Your task to perform on an android device: Open Yahoo.com Image 0: 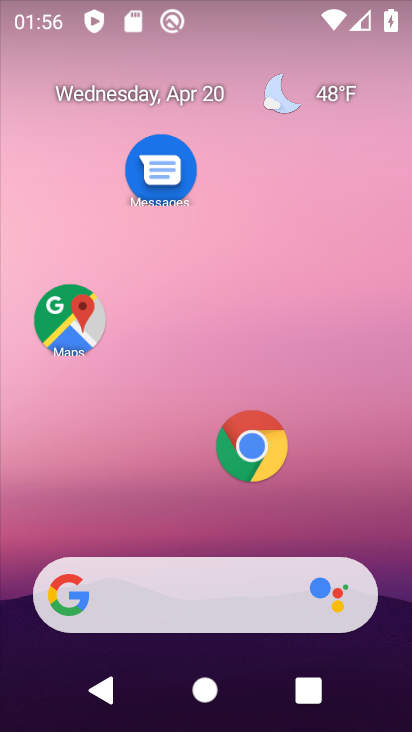
Step 0: drag from (206, 537) to (238, 60)
Your task to perform on an android device: Open Yahoo.com Image 1: 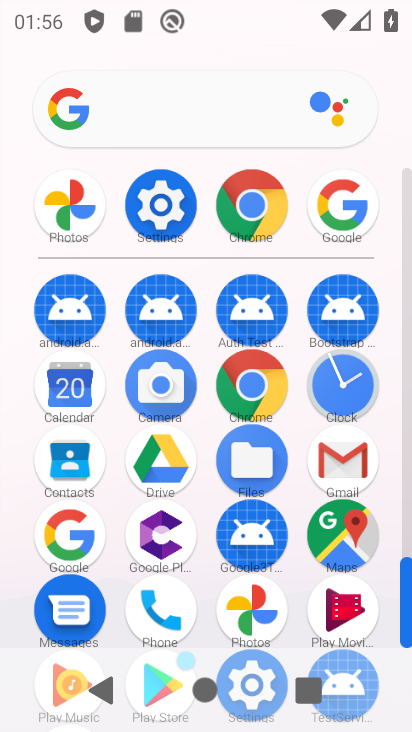
Step 1: click (246, 384)
Your task to perform on an android device: Open Yahoo.com Image 2: 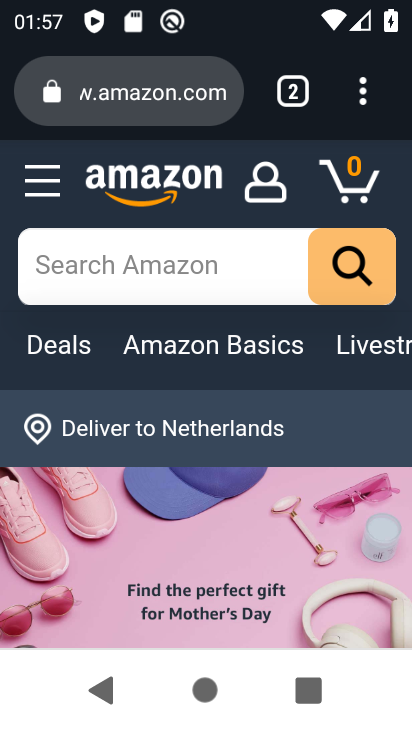
Step 2: click (292, 83)
Your task to perform on an android device: Open Yahoo.com Image 3: 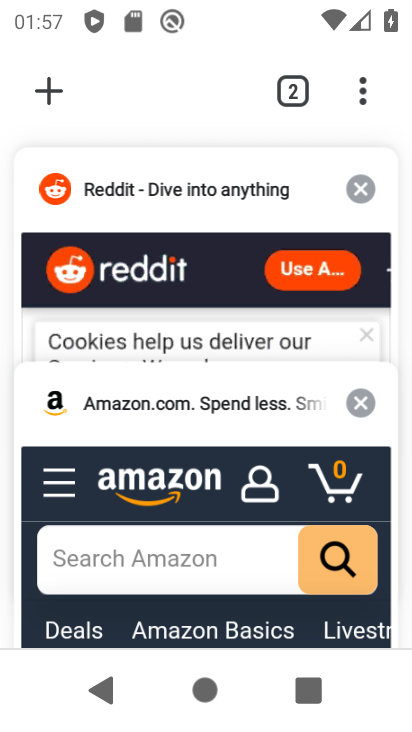
Step 3: click (364, 189)
Your task to perform on an android device: Open Yahoo.com Image 4: 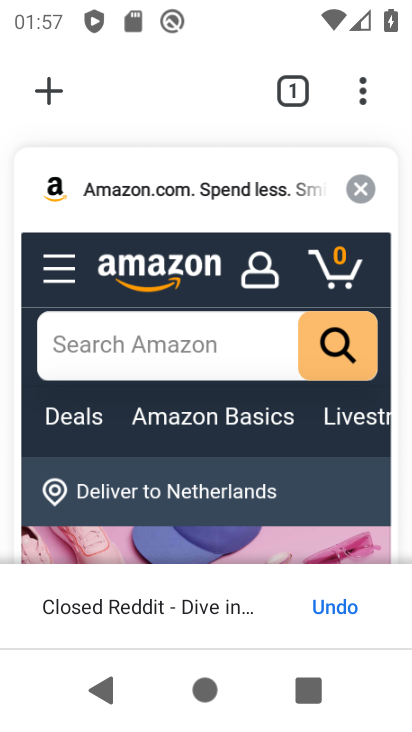
Step 4: click (357, 185)
Your task to perform on an android device: Open Yahoo.com Image 5: 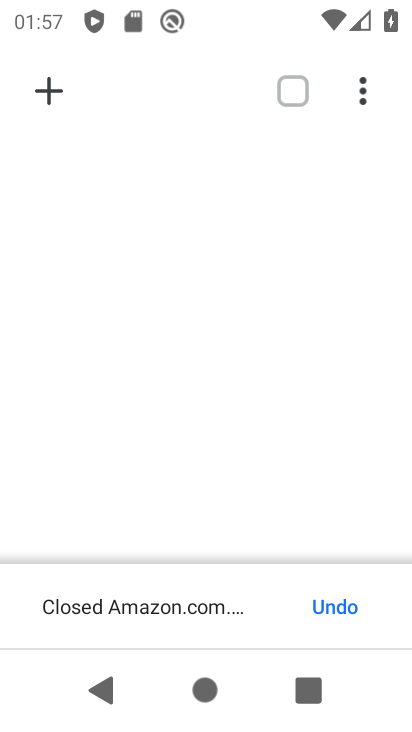
Step 5: click (56, 93)
Your task to perform on an android device: Open Yahoo.com Image 6: 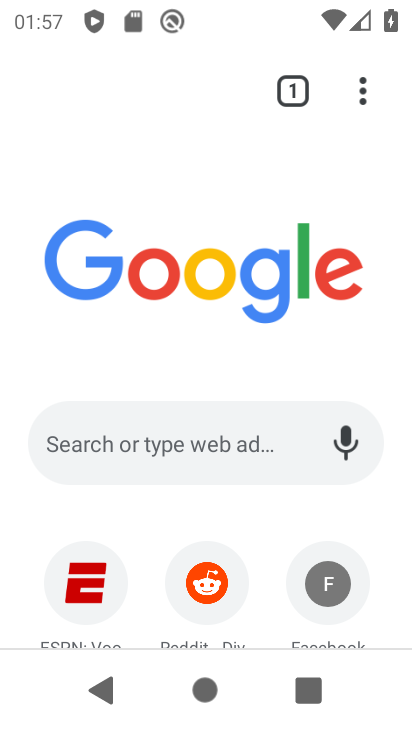
Step 6: drag from (259, 556) to (302, 179)
Your task to perform on an android device: Open Yahoo.com Image 7: 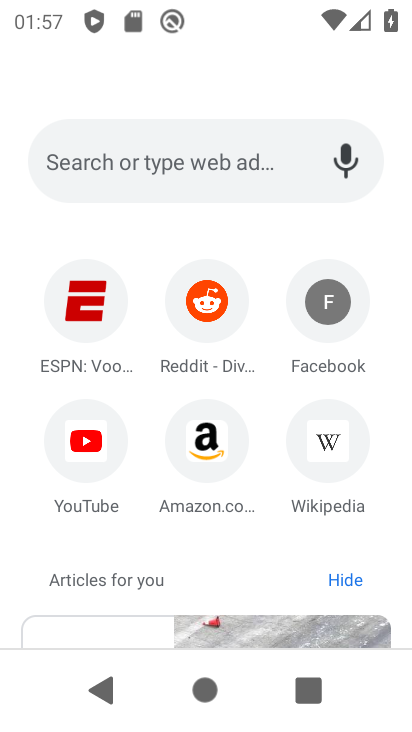
Step 7: click (153, 157)
Your task to perform on an android device: Open Yahoo.com Image 8: 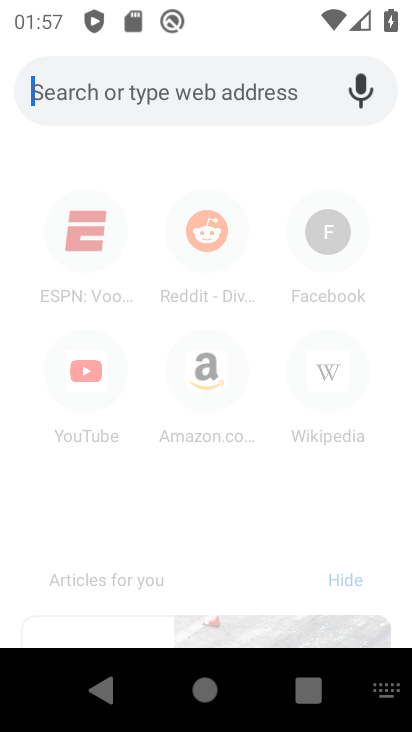
Step 8: type "yahoo.com"
Your task to perform on an android device: Open Yahoo.com Image 9: 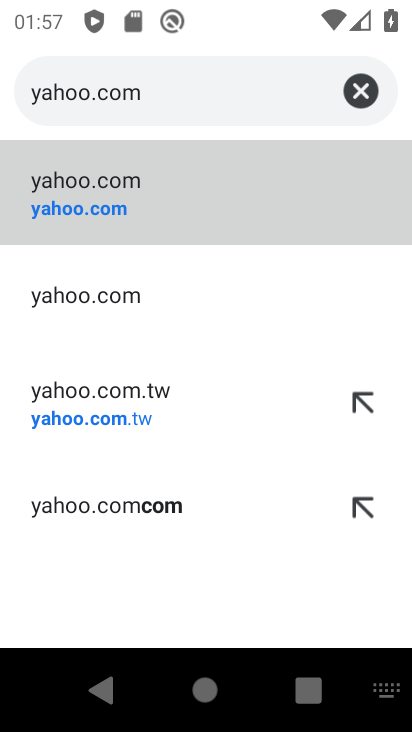
Step 9: click (146, 197)
Your task to perform on an android device: Open Yahoo.com Image 10: 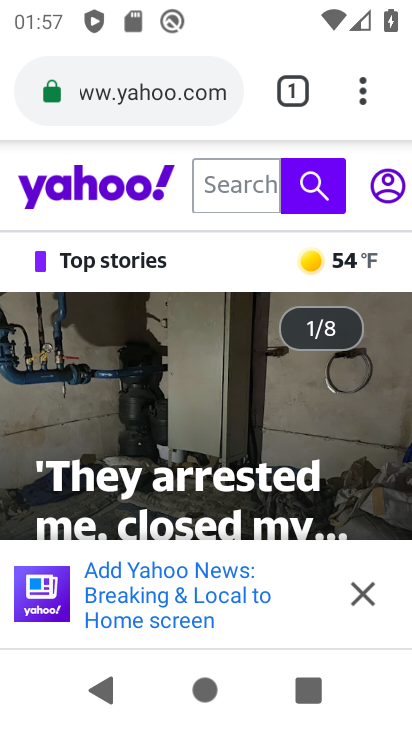
Step 10: task complete